Your task to perform on an android device: turn notification dots on Image 0: 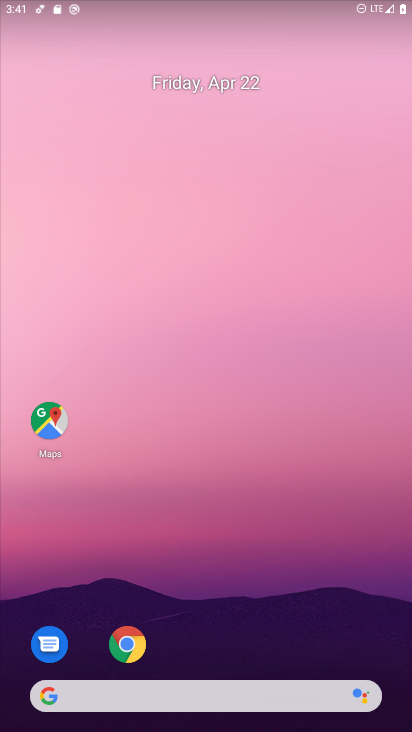
Step 0: drag from (174, 639) to (245, 185)
Your task to perform on an android device: turn notification dots on Image 1: 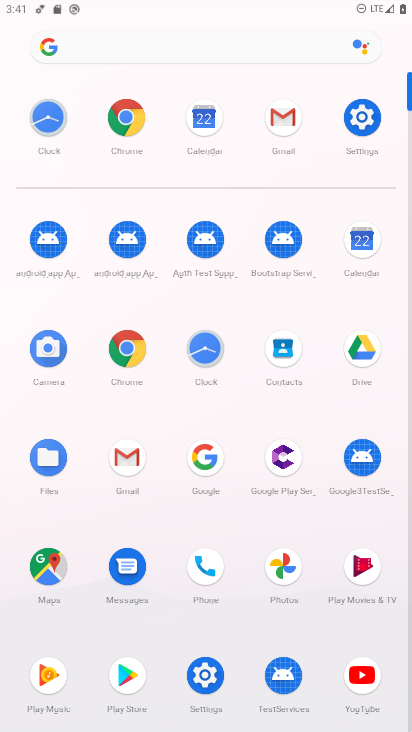
Step 1: click (357, 117)
Your task to perform on an android device: turn notification dots on Image 2: 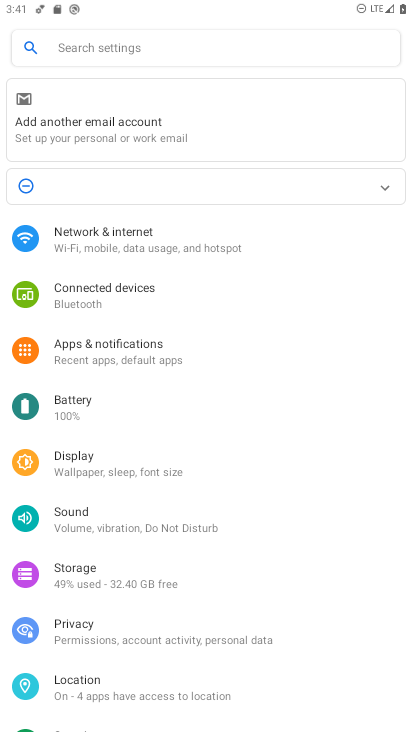
Step 2: click (130, 350)
Your task to perform on an android device: turn notification dots on Image 3: 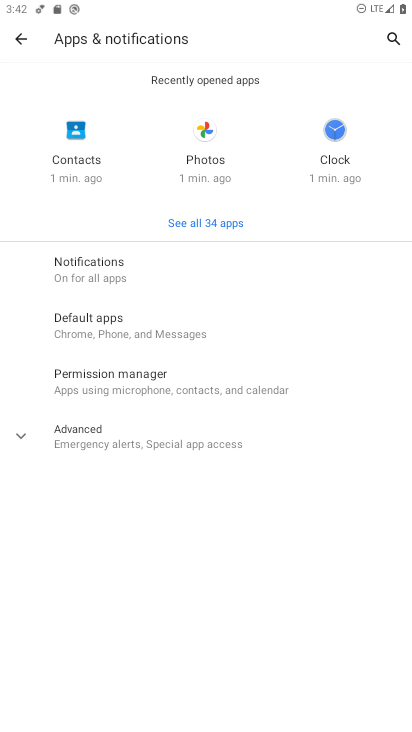
Step 3: click (113, 276)
Your task to perform on an android device: turn notification dots on Image 4: 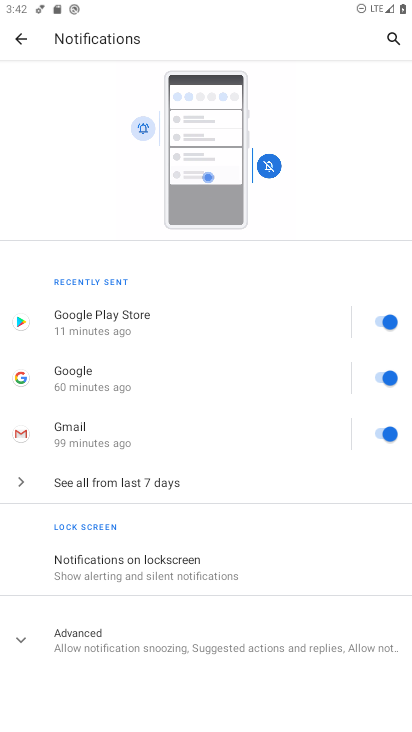
Step 4: drag from (195, 576) to (221, 278)
Your task to perform on an android device: turn notification dots on Image 5: 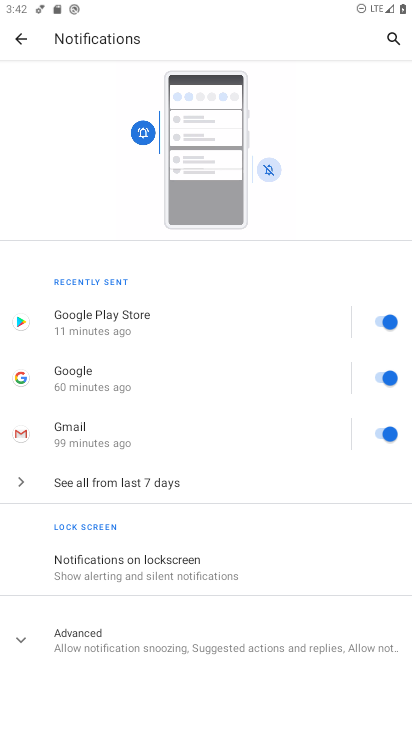
Step 5: drag from (212, 540) to (242, 183)
Your task to perform on an android device: turn notification dots on Image 6: 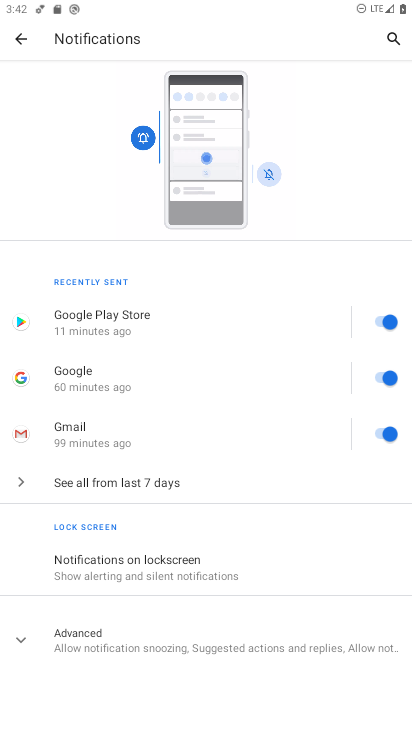
Step 6: click (137, 638)
Your task to perform on an android device: turn notification dots on Image 7: 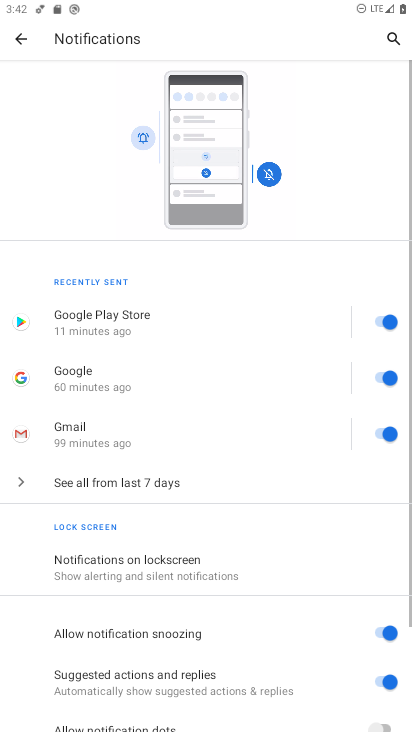
Step 7: drag from (251, 492) to (312, 132)
Your task to perform on an android device: turn notification dots on Image 8: 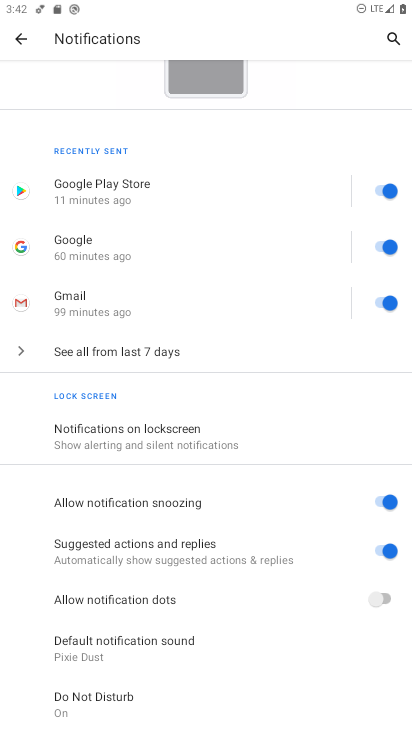
Step 8: click (386, 600)
Your task to perform on an android device: turn notification dots on Image 9: 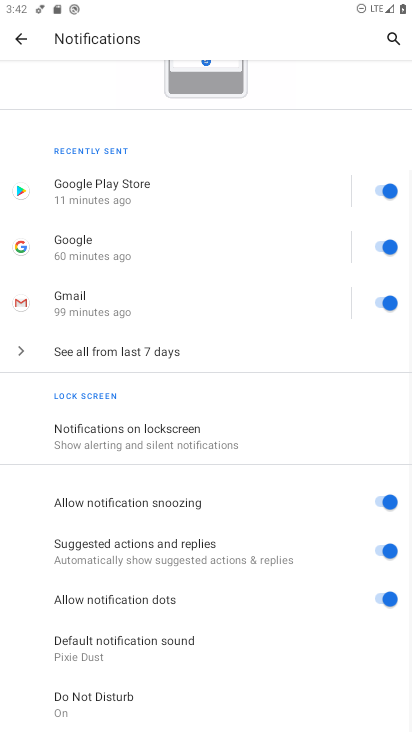
Step 9: task complete